Your task to perform on an android device: Set the phone to "Do not disturb". Image 0: 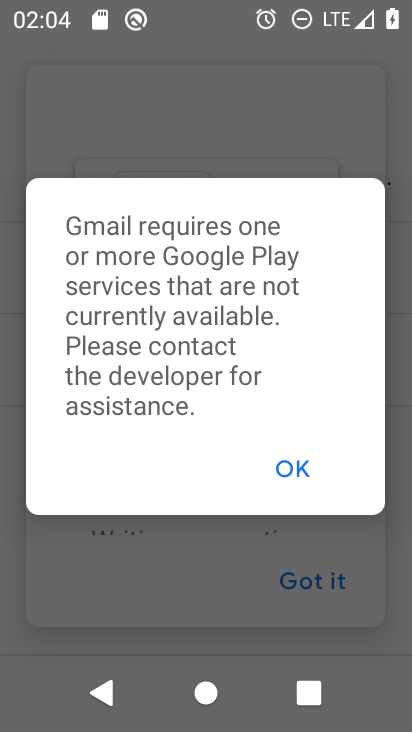
Step 0: press home button
Your task to perform on an android device: Set the phone to "Do not disturb". Image 1: 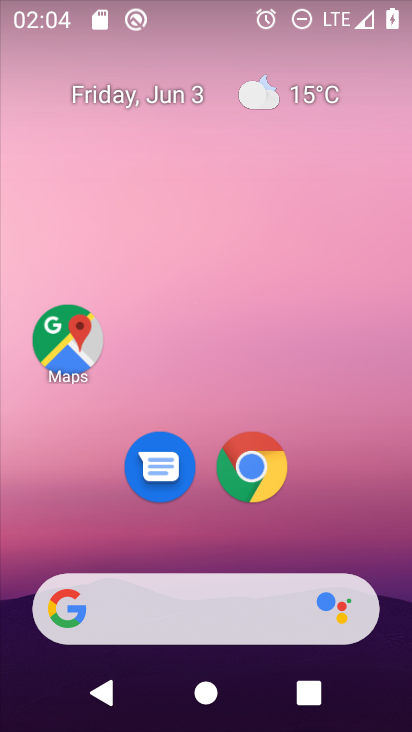
Step 1: drag from (391, 618) to (348, 129)
Your task to perform on an android device: Set the phone to "Do not disturb". Image 2: 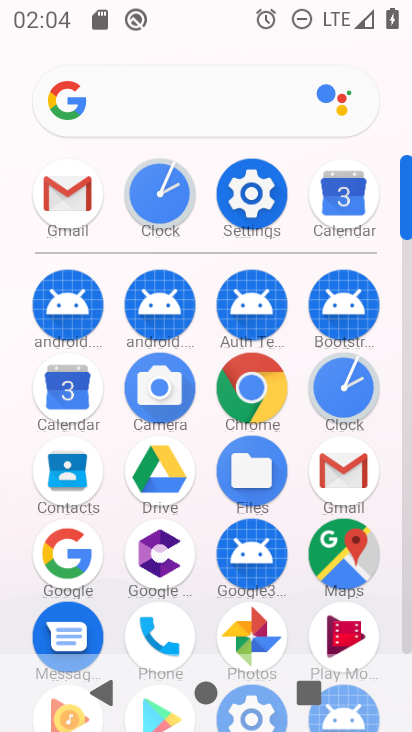
Step 2: click (408, 635)
Your task to perform on an android device: Set the phone to "Do not disturb". Image 3: 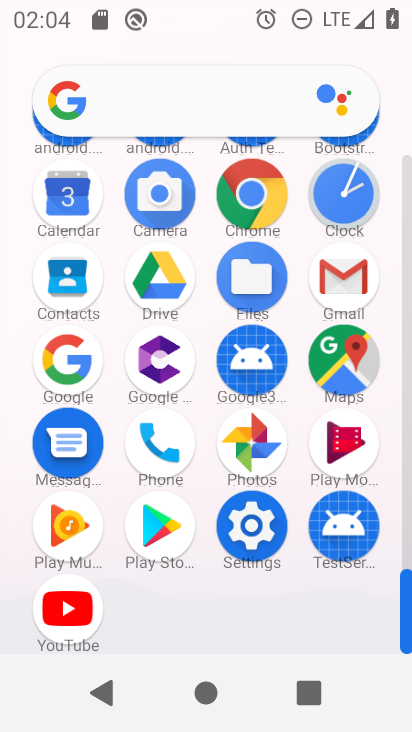
Step 3: click (250, 526)
Your task to perform on an android device: Set the phone to "Do not disturb". Image 4: 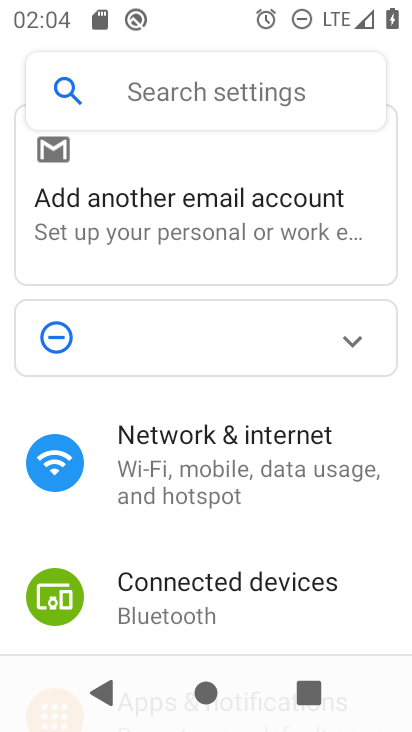
Step 4: drag from (372, 325) to (359, 199)
Your task to perform on an android device: Set the phone to "Do not disturb". Image 5: 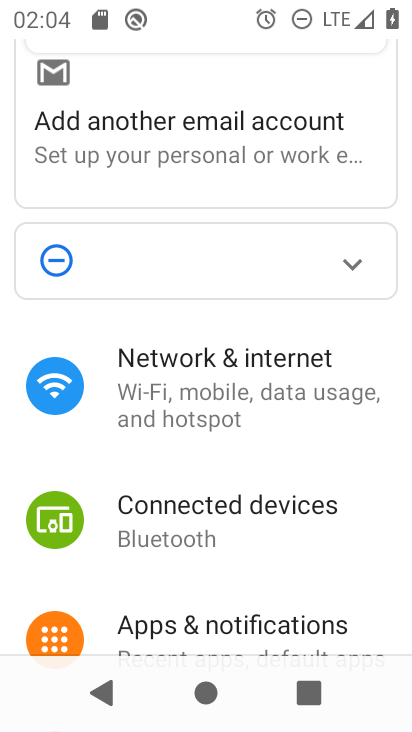
Step 5: drag from (372, 552) to (354, 210)
Your task to perform on an android device: Set the phone to "Do not disturb". Image 6: 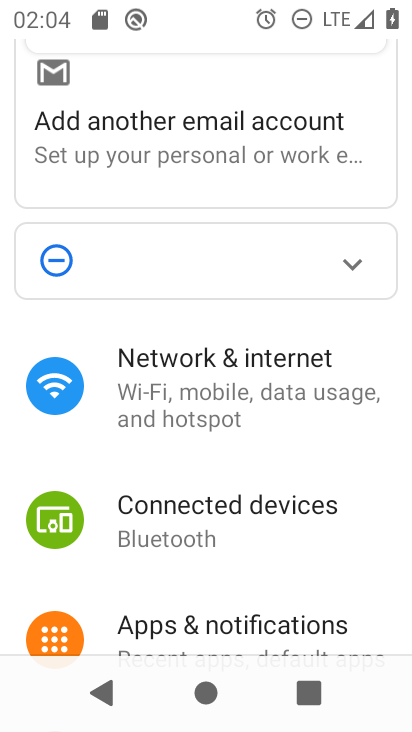
Step 6: drag from (357, 584) to (310, 110)
Your task to perform on an android device: Set the phone to "Do not disturb". Image 7: 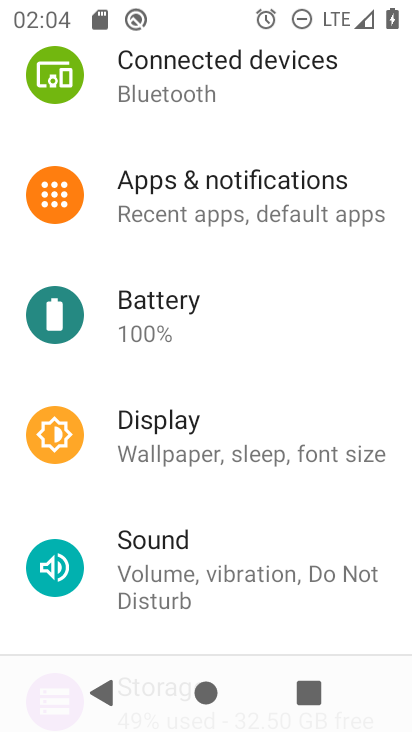
Step 7: drag from (237, 551) to (258, 168)
Your task to perform on an android device: Set the phone to "Do not disturb". Image 8: 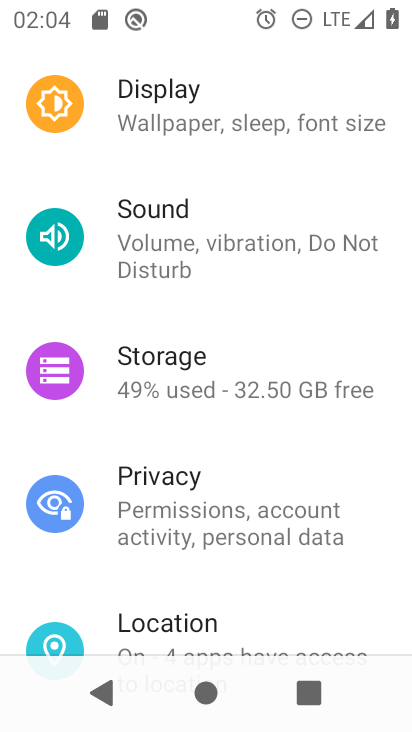
Step 8: click (163, 245)
Your task to perform on an android device: Set the phone to "Do not disturb". Image 9: 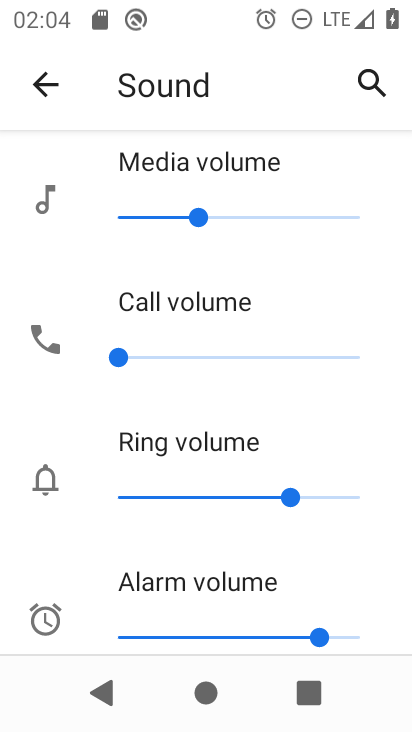
Step 9: drag from (330, 552) to (338, 191)
Your task to perform on an android device: Set the phone to "Do not disturb". Image 10: 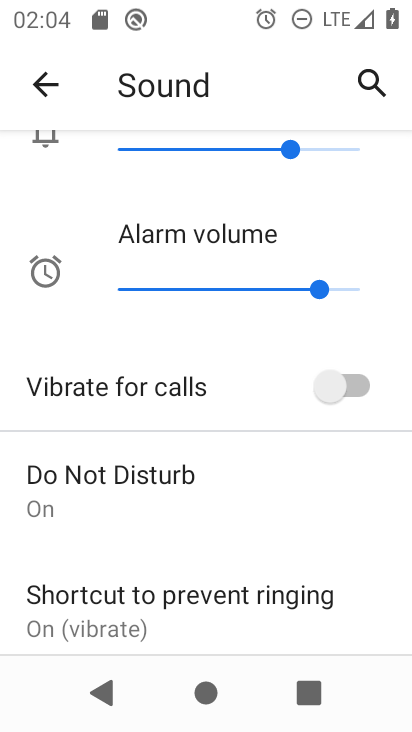
Step 10: click (101, 484)
Your task to perform on an android device: Set the phone to "Do not disturb". Image 11: 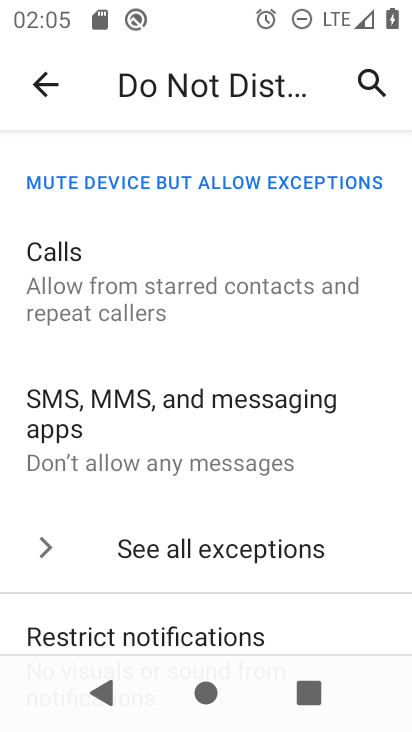
Step 11: task complete